Your task to perform on an android device: turn off location Image 0: 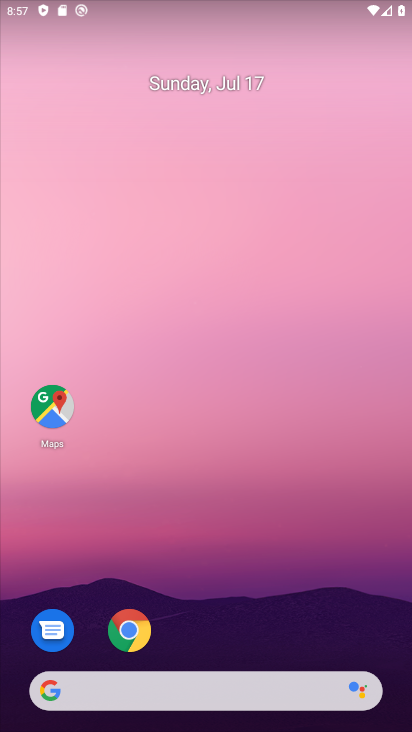
Step 0: click (320, 25)
Your task to perform on an android device: turn off location Image 1: 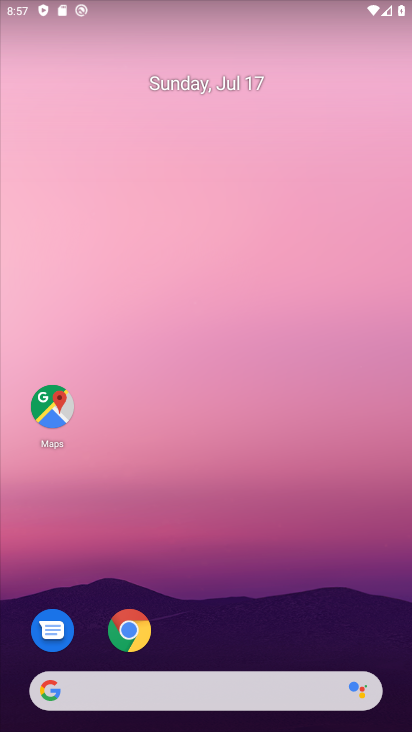
Step 1: drag from (213, 648) to (236, 93)
Your task to perform on an android device: turn off location Image 2: 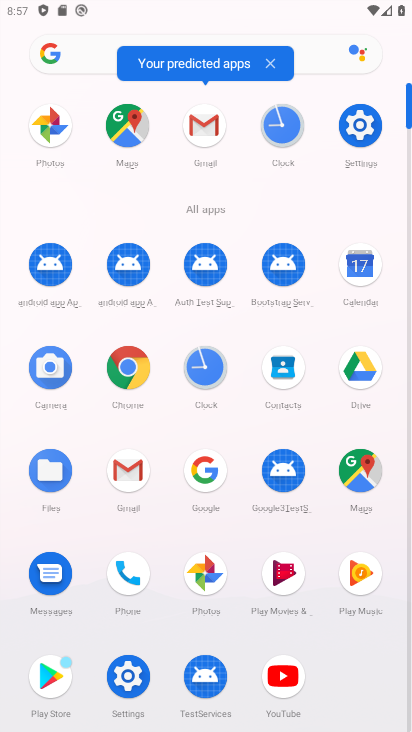
Step 2: click (358, 130)
Your task to perform on an android device: turn off location Image 3: 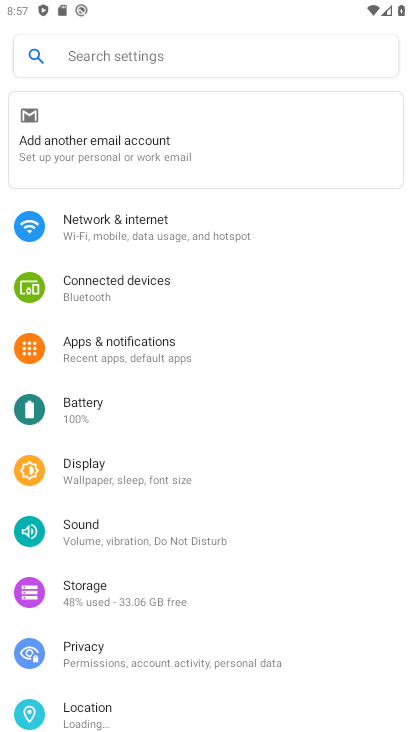
Step 3: click (109, 714)
Your task to perform on an android device: turn off location Image 4: 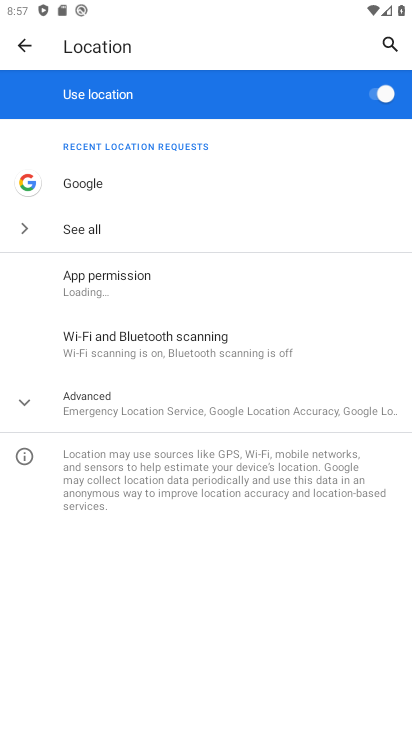
Step 4: click (378, 96)
Your task to perform on an android device: turn off location Image 5: 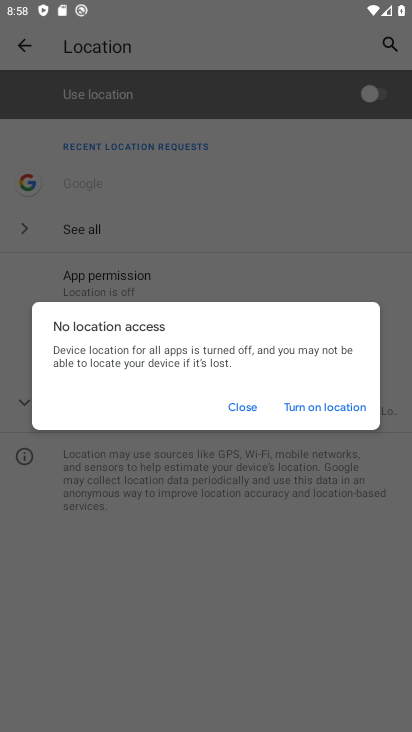
Step 5: click (233, 406)
Your task to perform on an android device: turn off location Image 6: 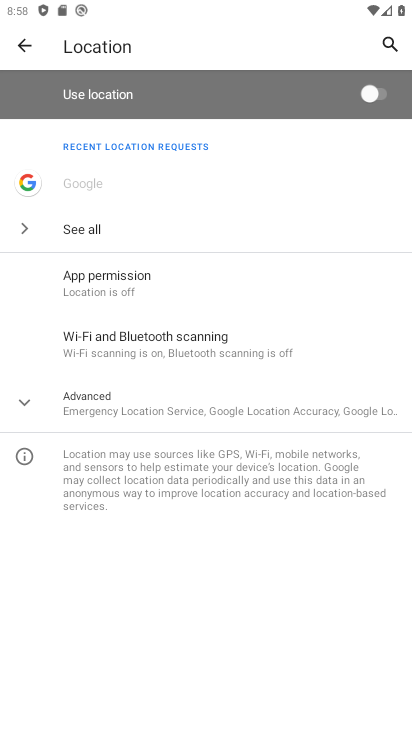
Step 6: task complete